Your task to perform on an android device: Go to Yahoo.com Image 0: 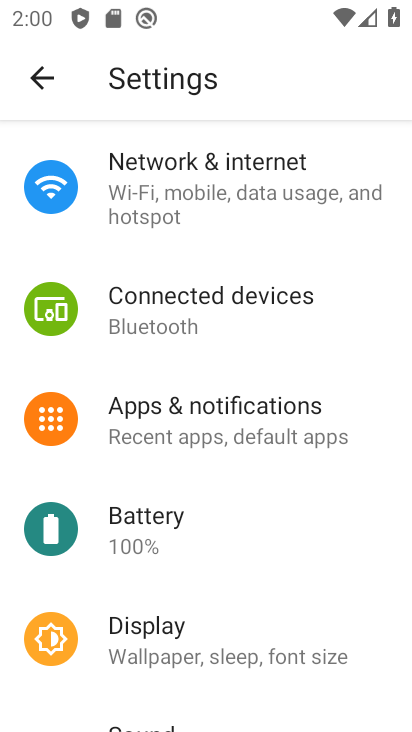
Step 0: press home button
Your task to perform on an android device: Go to Yahoo.com Image 1: 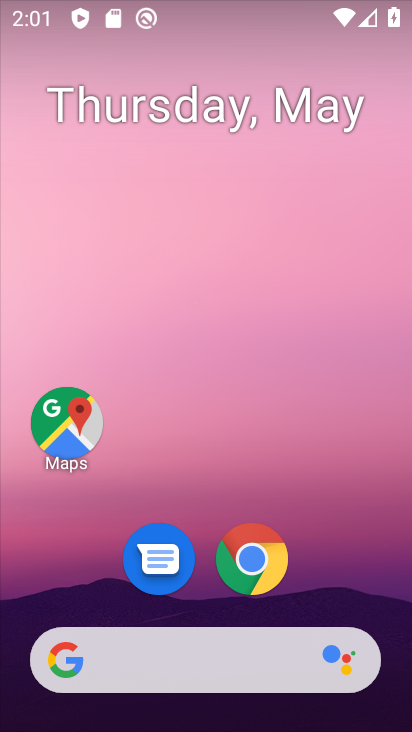
Step 1: click (264, 533)
Your task to perform on an android device: Go to Yahoo.com Image 2: 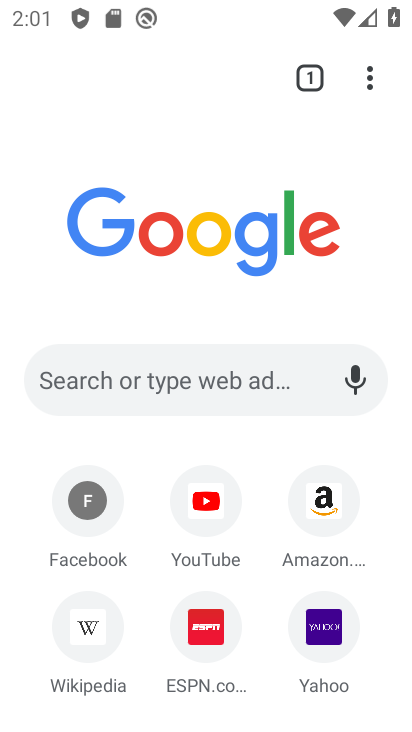
Step 2: click (307, 626)
Your task to perform on an android device: Go to Yahoo.com Image 3: 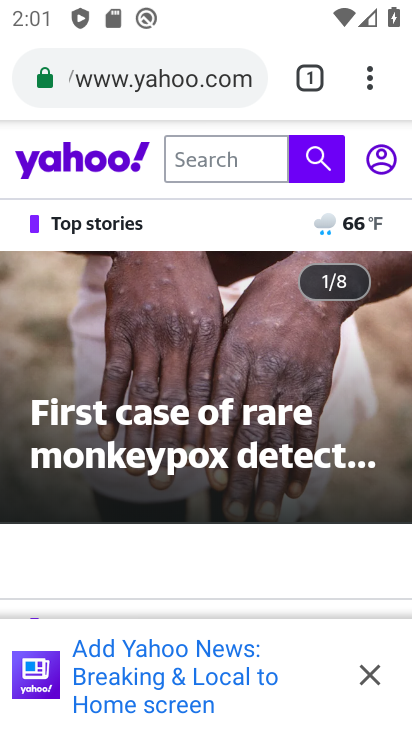
Step 3: task complete